Your task to perform on an android device: Set the phone to "Do not disturb". Image 0: 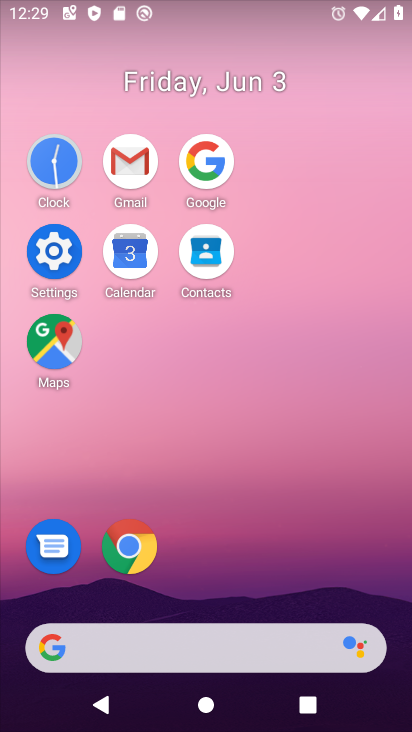
Step 0: click (48, 344)
Your task to perform on an android device: Set the phone to "Do not disturb". Image 1: 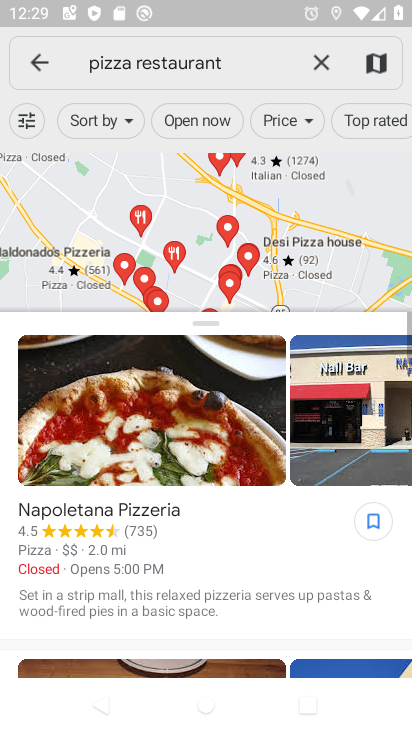
Step 1: click (328, 74)
Your task to perform on an android device: Set the phone to "Do not disturb". Image 2: 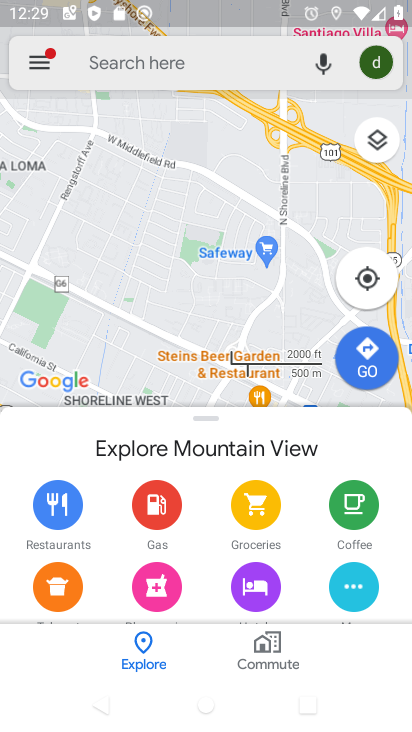
Step 2: click (207, 60)
Your task to perform on an android device: Set the phone to "Do not disturb". Image 3: 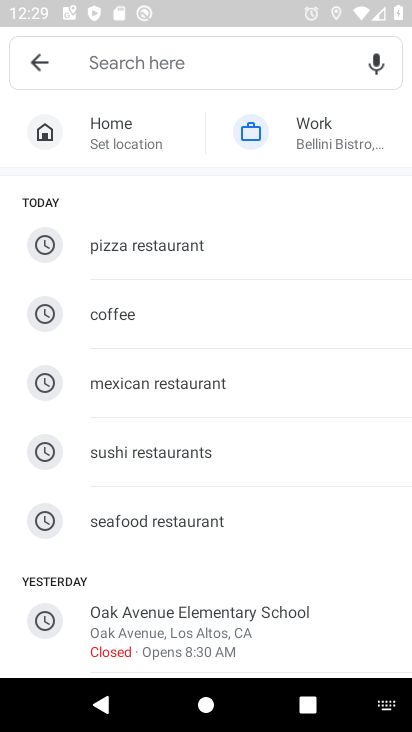
Step 3: click (189, 451)
Your task to perform on an android device: Set the phone to "Do not disturb". Image 4: 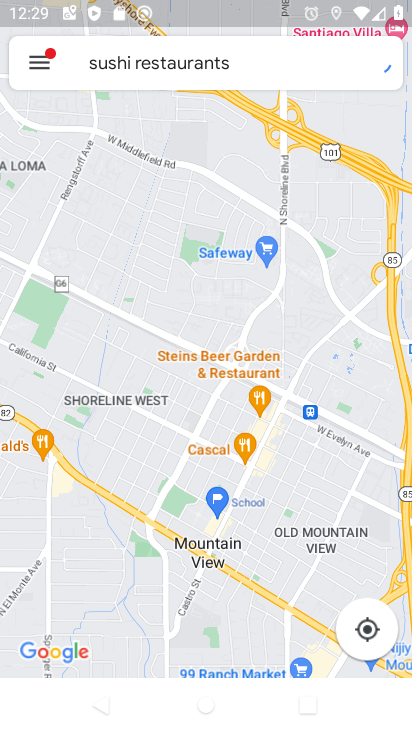
Step 4: task complete